Your task to perform on an android device: Turn off the flashlight Image 0: 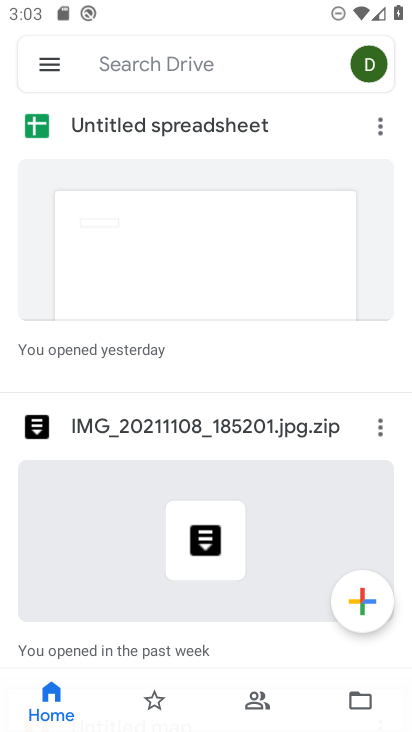
Step 0: press home button
Your task to perform on an android device: Turn off the flashlight Image 1: 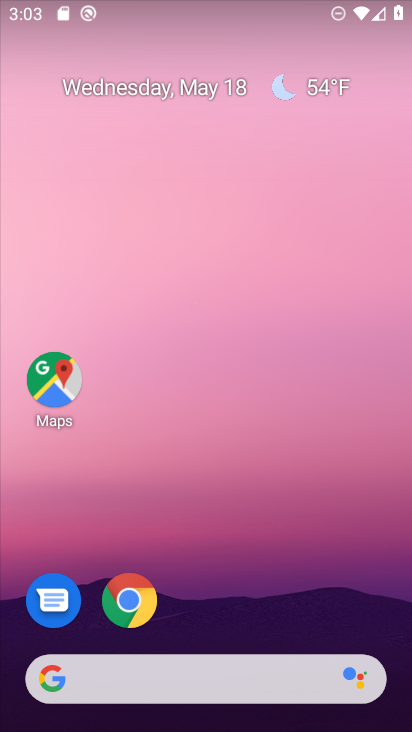
Step 1: drag from (187, 614) to (246, 10)
Your task to perform on an android device: Turn off the flashlight Image 2: 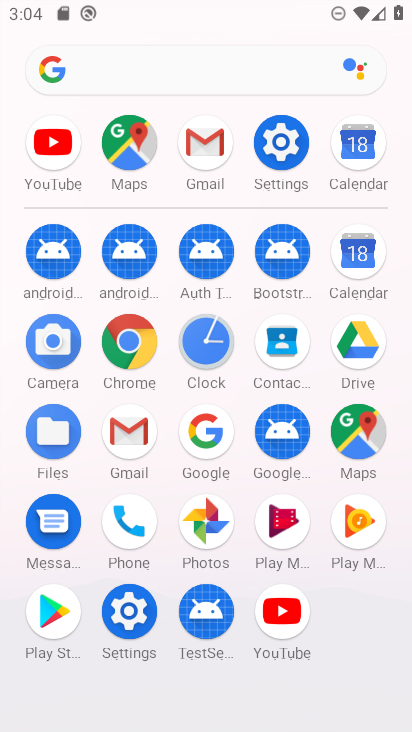
Step 2: click (290, 159)
Your task to perform on an android device: Turn off the flashlight Image 3: 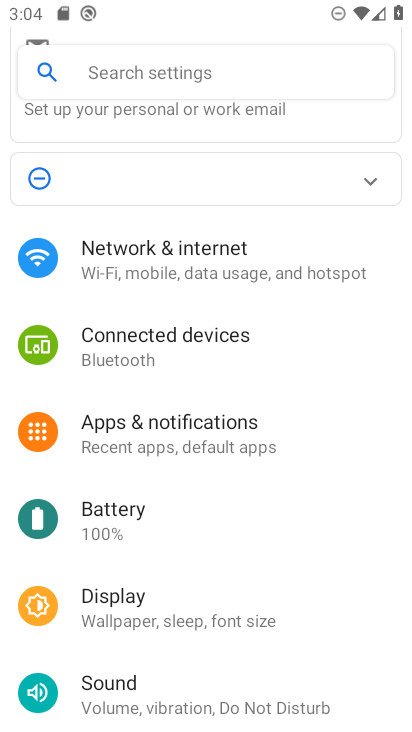
Step 3: click (214, 62)
Your task to perform on an android device: Turn off the flashlight Image 4: 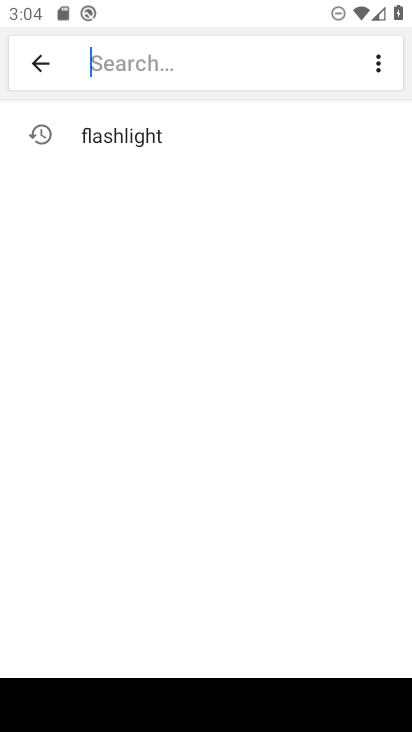
Step 4: type "flashlight"
Your task to perform on an android device: Turn off the flashlight Image 5: 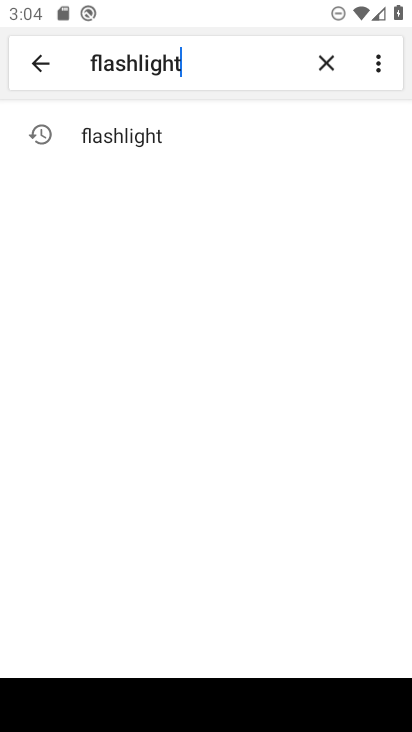
Step 5: click (122, 150)
Your task to perform on an android device: Turn off the flashlight Image 6: 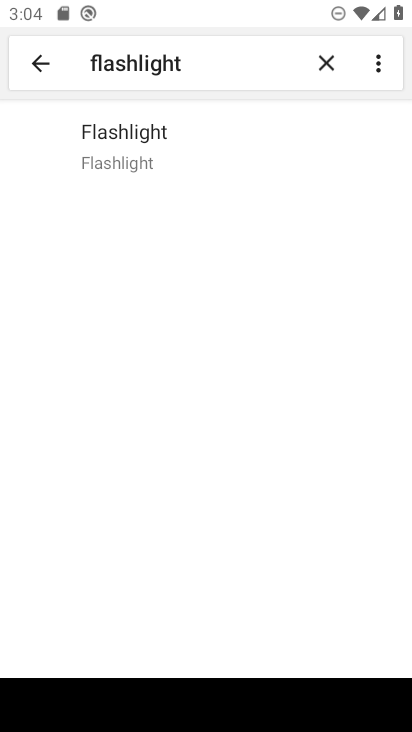
Step 6: click (123, 150)
Your task to perform on an android device: Turn off the flashlight Image 7: 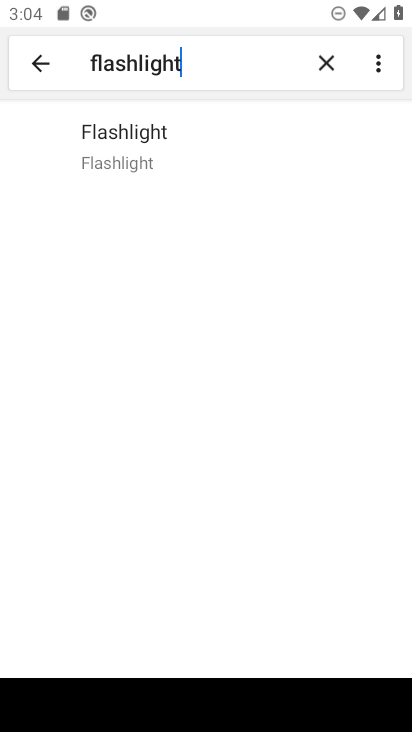
Step 7: task complete